Your task to perform on an android device: Go to sound settings Image 0: 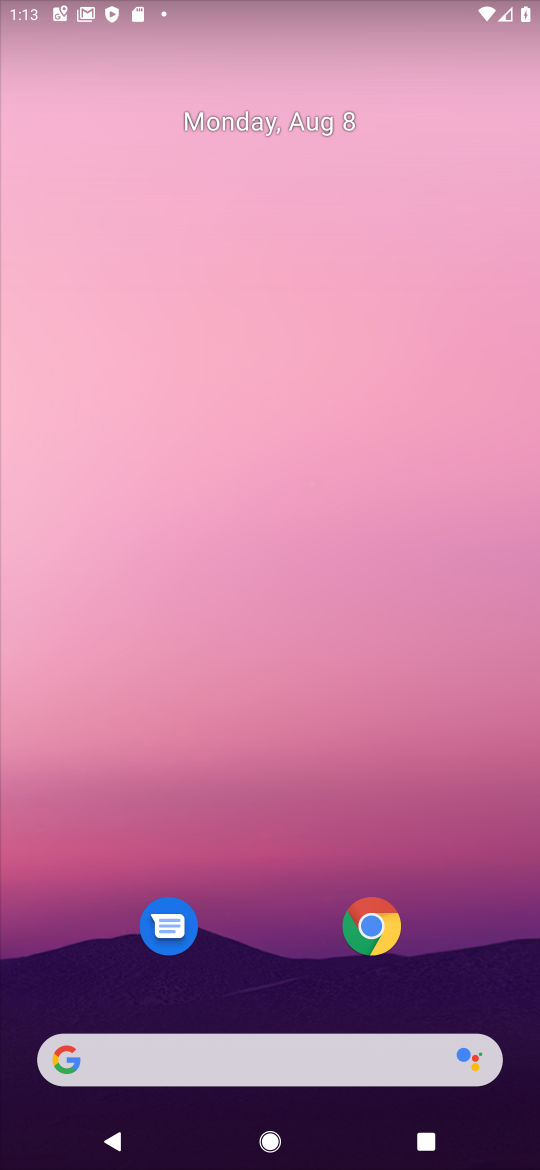
Step 0: drag from (300, 568) to (310, 256)
Your task to perform on an android device: Go to sound settings Image 1: 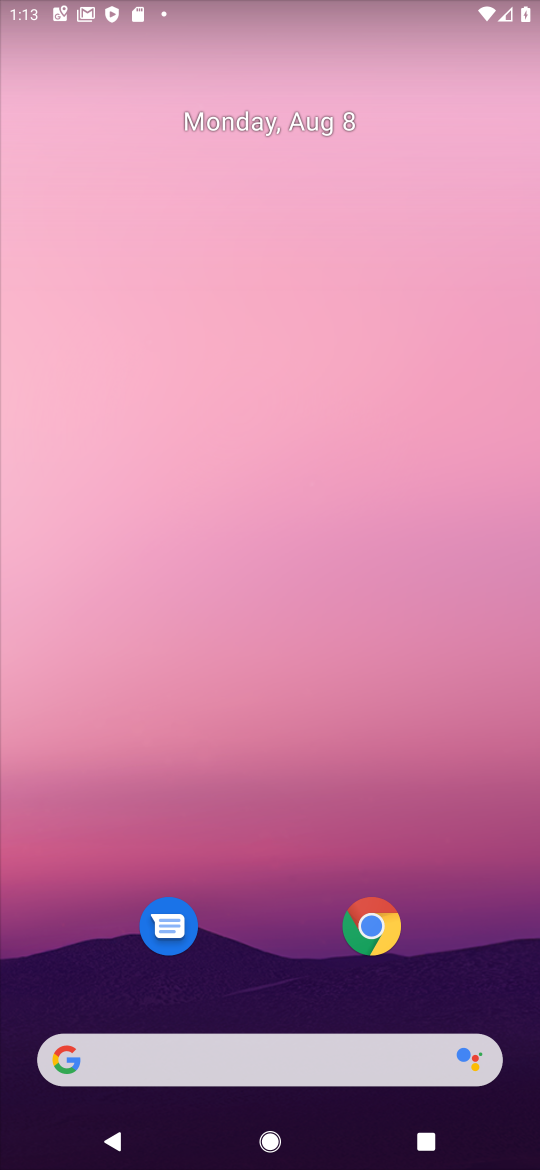
Step 1: drag from (240, 1067) to (246, 407)
Your task to perform on an android device: Go to sound settings Image 2: 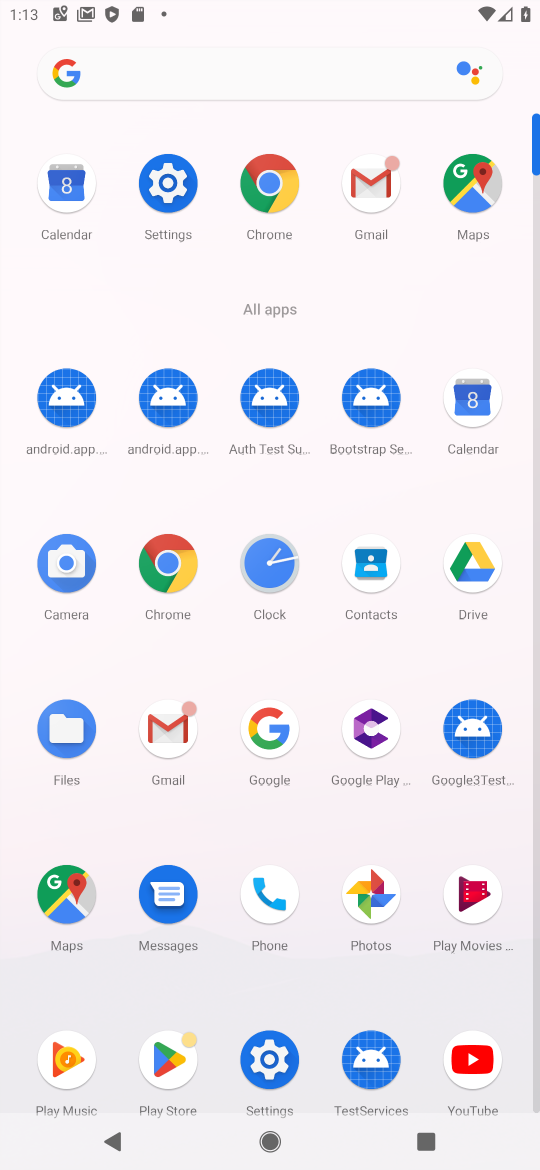
Step 2: click (171, 183)
Your task to perform on an android device: Go to sound settings Image 3: 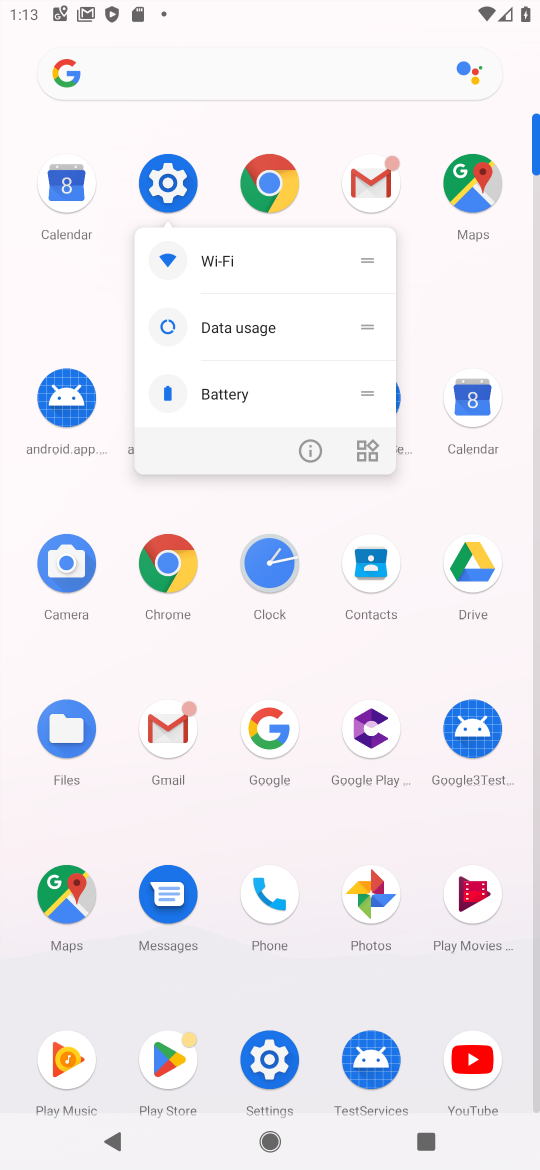
Step 3: click (149, 162)
Your task to perform on an android device: Go to sound settings Image 4: 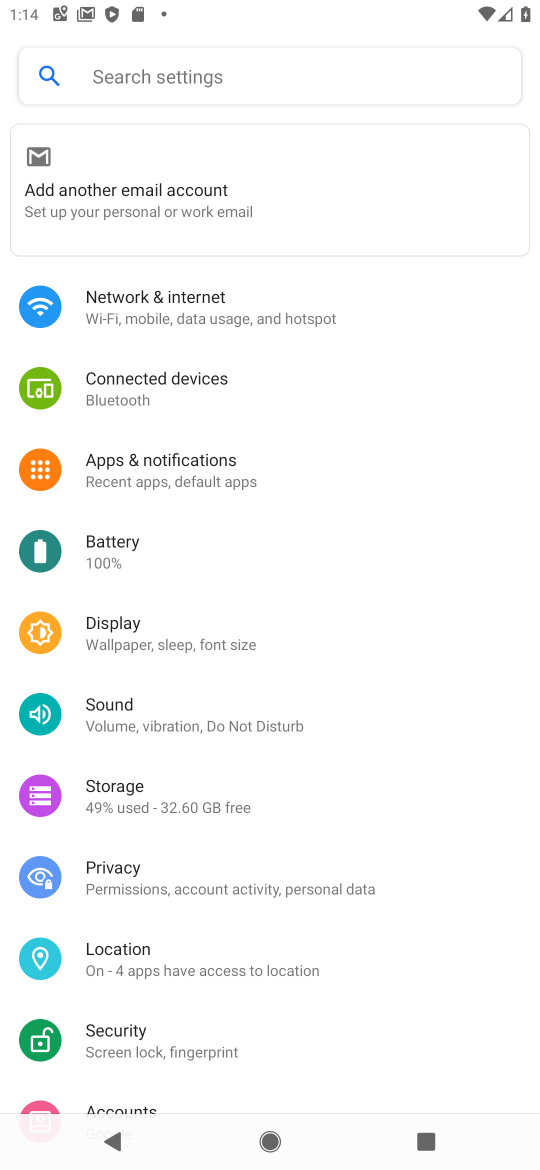
Step 4: click (166, 596)
Your task to perform on an android device: Go to sound settings Image 5: 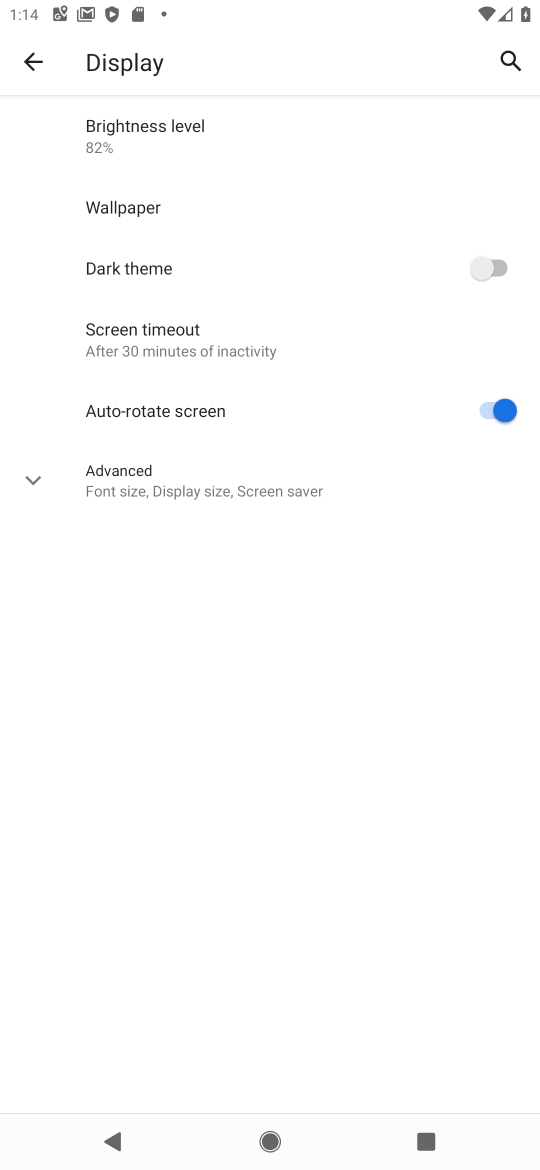
Step 5: click (39, 69)
Your task to perform on an android device: Go to sound settings Image 6: 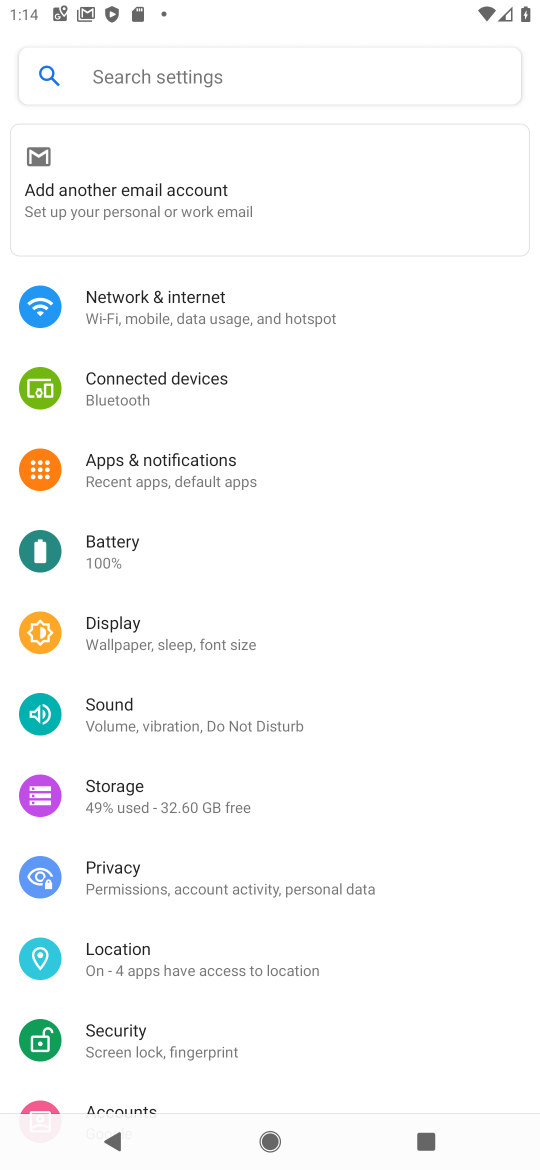
Step 6: click (163, 691)
Your task to perform on an android device: Go to sound settings Image 7: 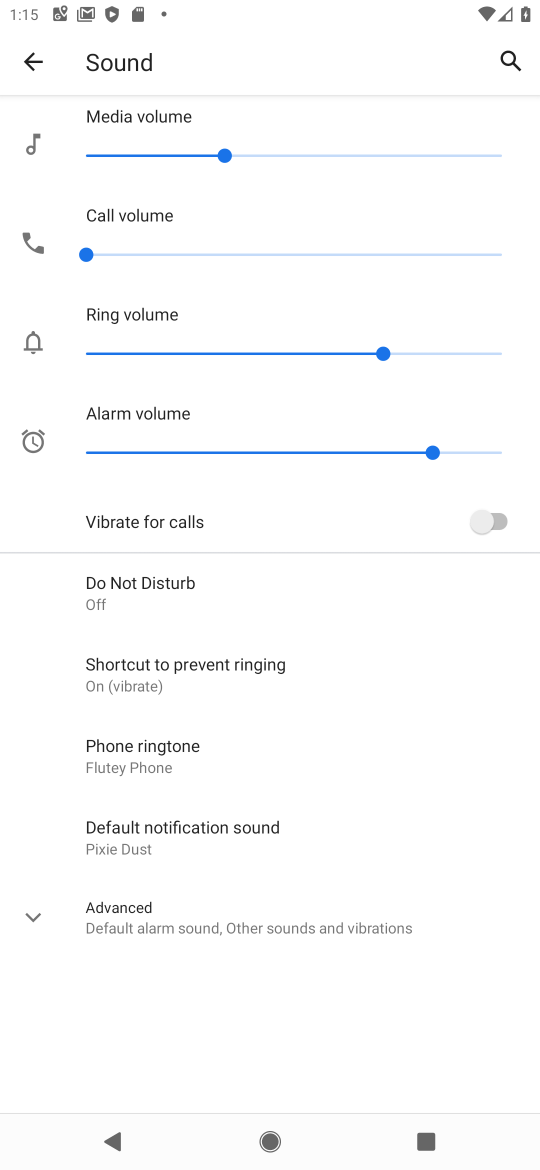
Step 7: task complete